Your task to perform on an android device: find photos in the google photos app Image 0: 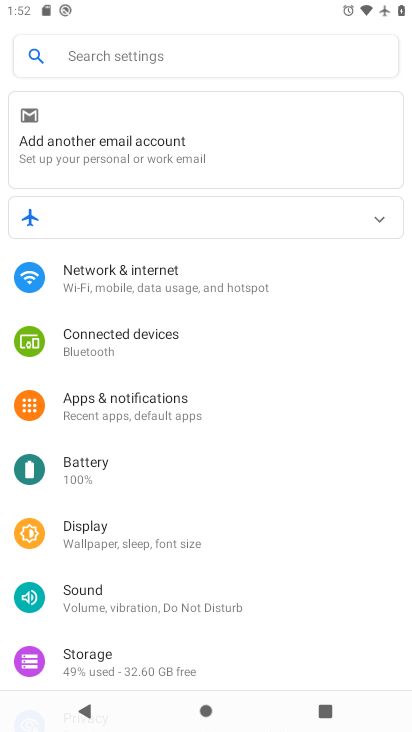
Step 0: press home button
Your task to perform on an android device: find photos in the google photos app Image 1: 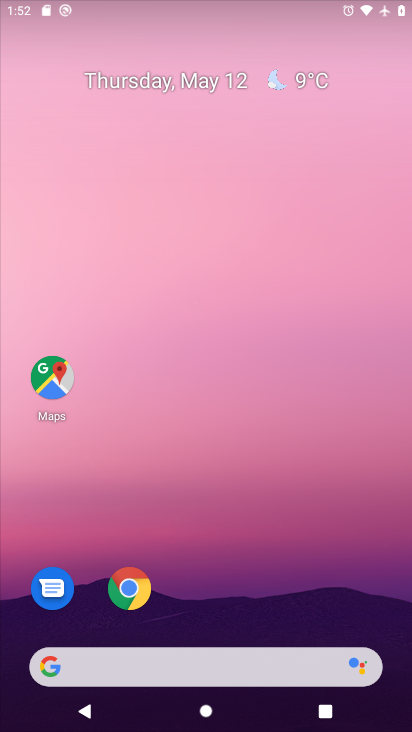
Step 1: drag from (319, 520) to (379, 68)
Your task to perform on an android device: find photos in the google photos app Image 2: 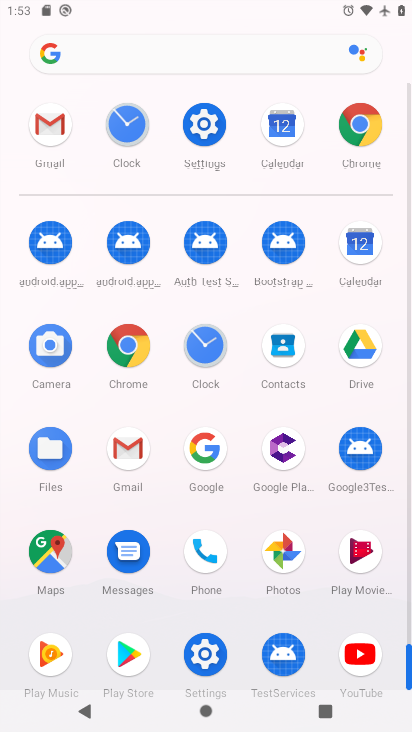
Step 2: click (277, 555)
Your task to perform on an android device: find photos in the google photos app Image 3: 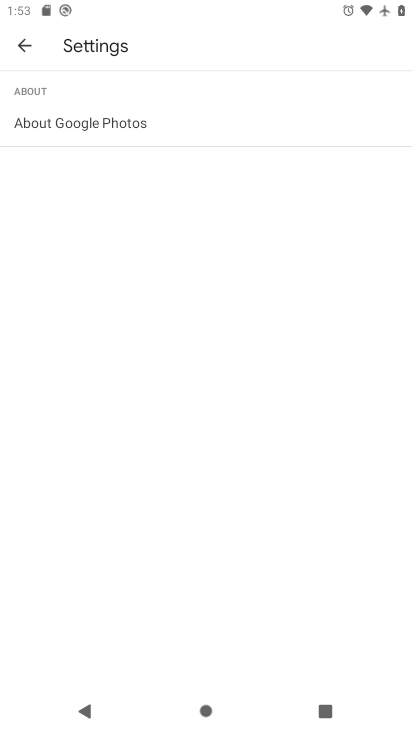
Step 3: click (29, 44)
Your task to perform on an android device: find photos in the google photos app Image 4: 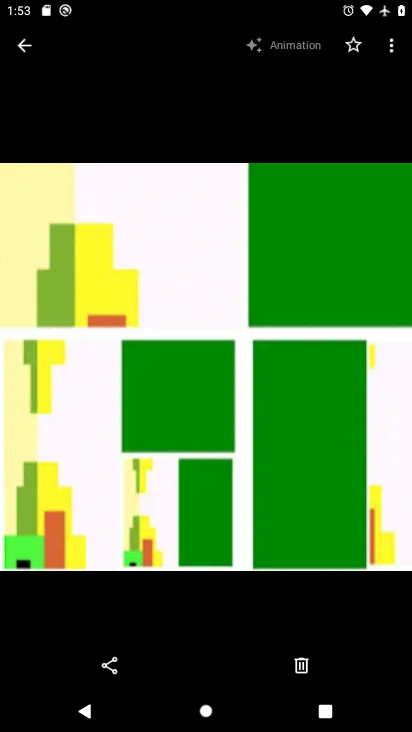
Step 4: task complete